Your task to perform on an android device: Open the map Image 0: 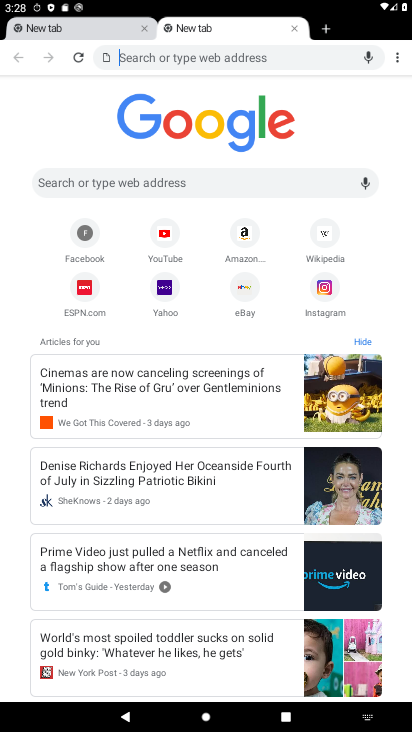
Step 0: press home button
Your task to perform on an android device: Open the map Image 1: 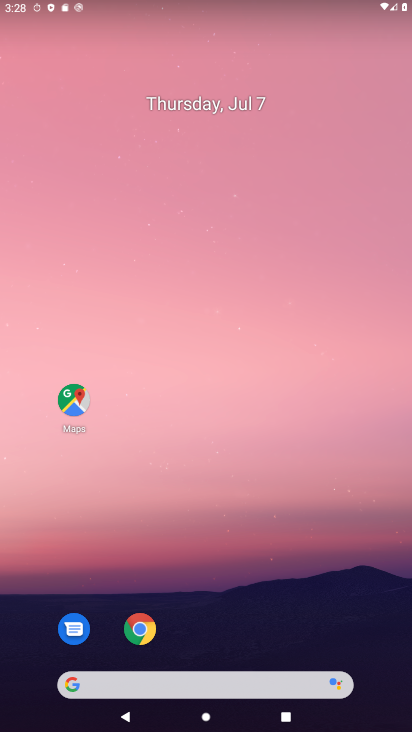
Step 1: drag from (232, 448) to (328, 102)
Your task to perform on an android device: Open the map Image 2: 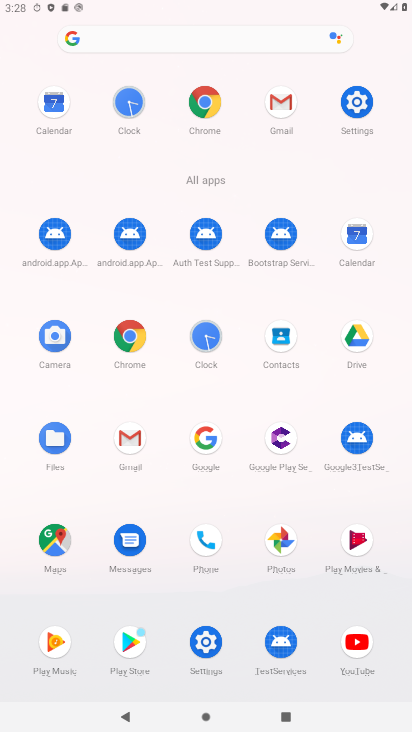
Step 2: click (58, 549)
Your task to perform on an android device: Open the map Image 3: 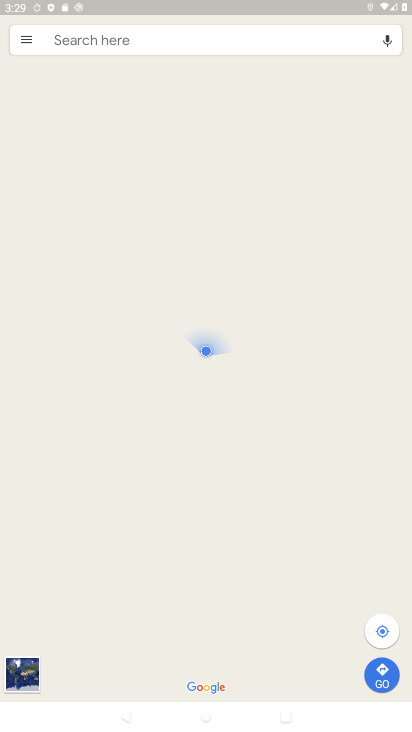
Step 3: task complete